Your task to perform on an android device: turn off data saver in the chrome app Image 0: 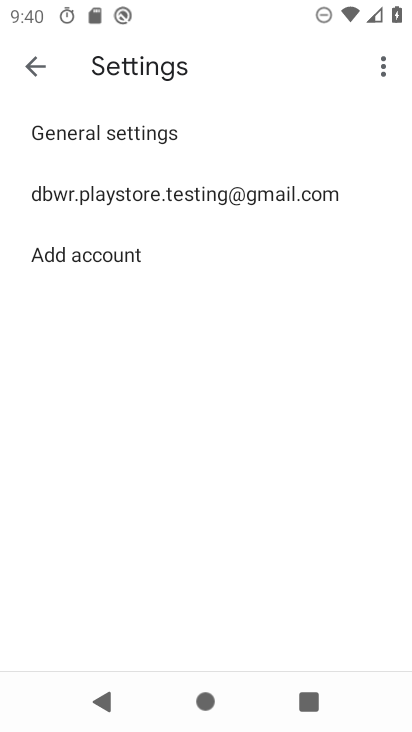
Step 0: press home button
Your task to perform on an android device: turn off data saver in the chrome app Image 1: 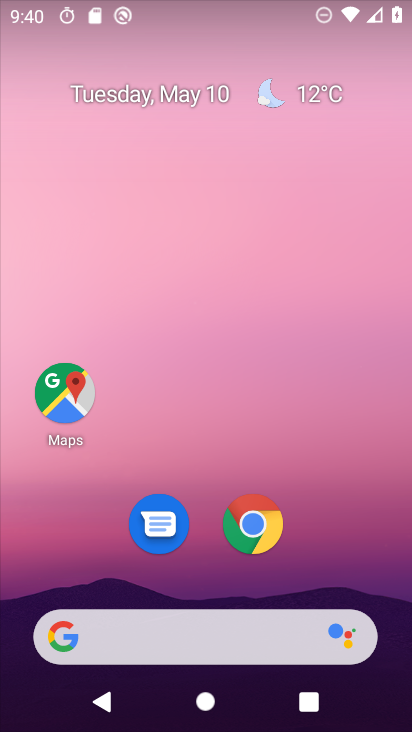
Step 1: drag from (313, 523) to (340, 55)
Your task to perform on an android device: turn off data saver in the chrome app Image 2: 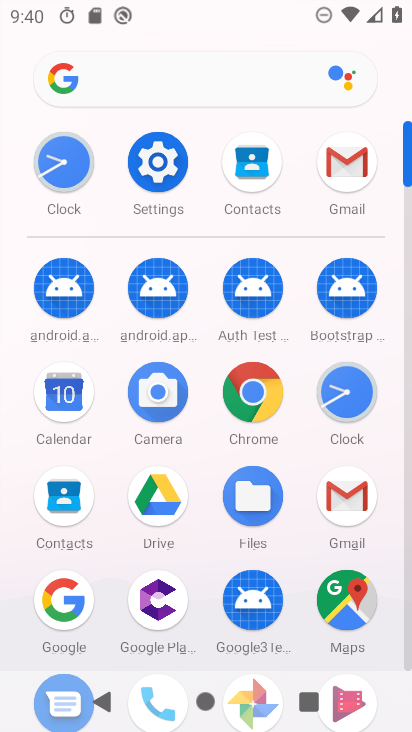
Step 2: click (262, 384)
Your task to perform on an android device: turn off data saver in the chrome app Image 3: 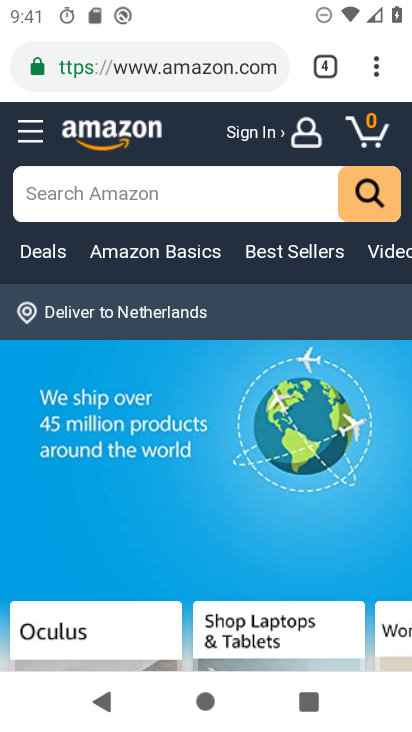
Step 3: click (375, 69)
Your task to perform on an android device: turn off data saver in the chrome app Image 4: 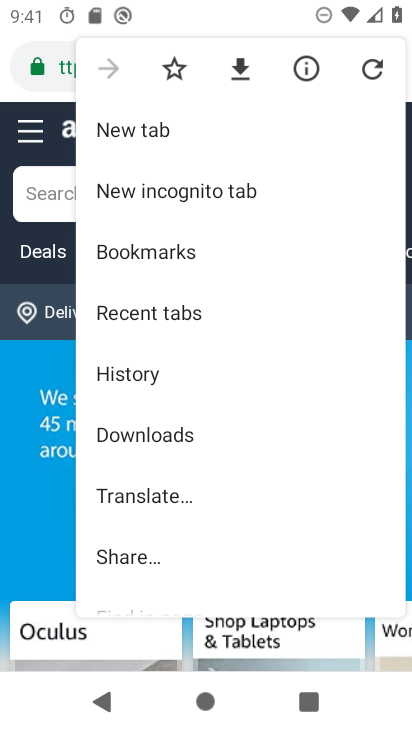
Step 4: drag from (220, 473) to (219, 125)
Your task to perform on an android device: turn off data saver in the chrome app Image 5: 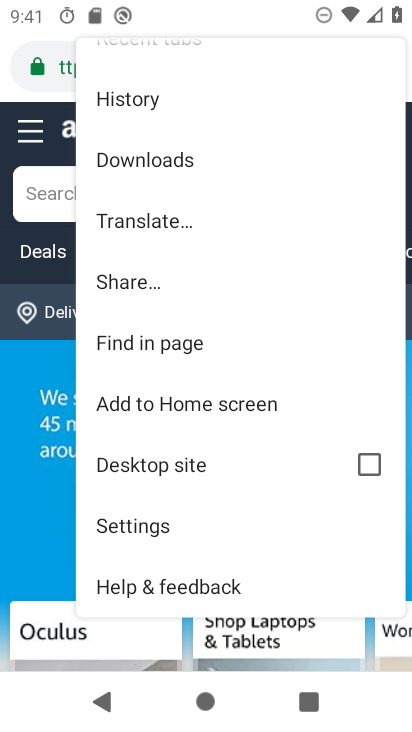
Step 5: click (198, 523)
Your task to perform on an android device: turn off data saver in the chrome app Image 6: 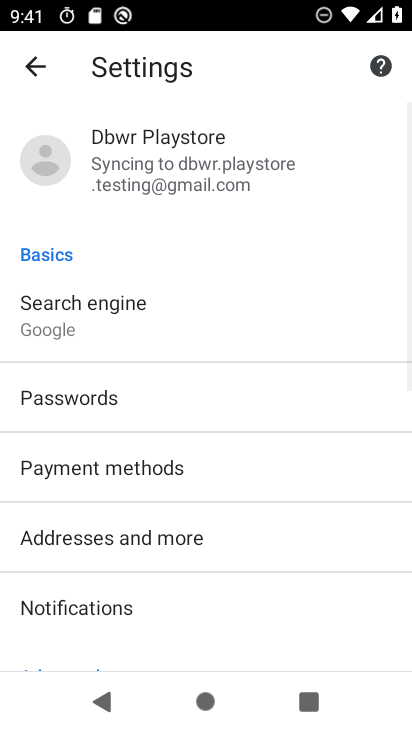
Step 6: drag from (250, 610) to (245, 163)
Your task to perform on an android device: turn off data saver in the chrome app Image 7: 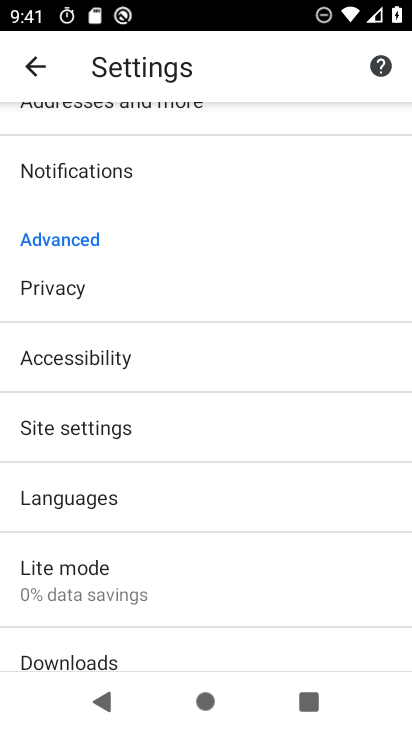
Step 7: click (160, 577)
Your task to perform on an android device: turn off data saver in the chrome app Image 8: 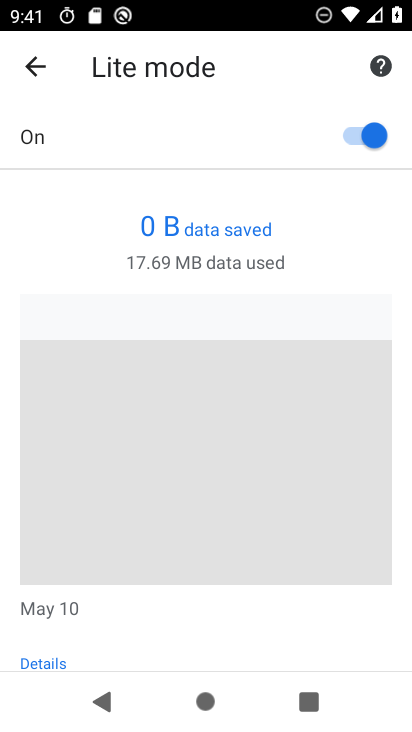
Step 8: click (360, 125)
Your task to perform on an android device: turn off data saver in the chrome app Image 9: 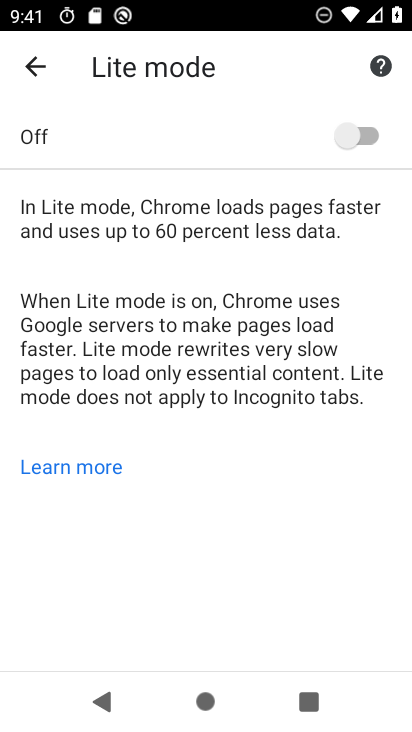
Step 9: task complete